Your task to perform on an android device: turn on notifications settings in the gmail app Image 0: 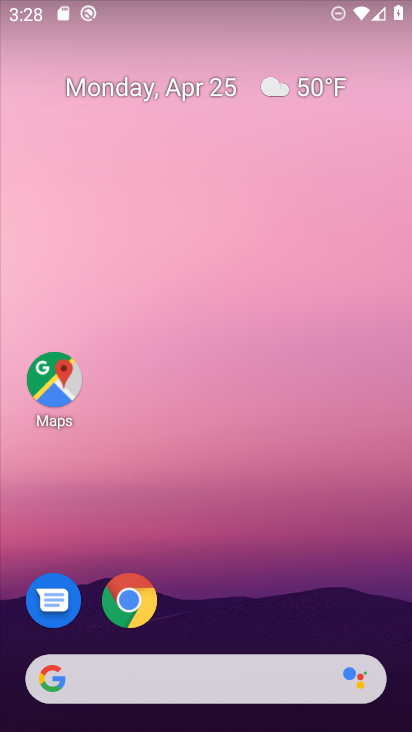
Step 0: drag from (234, 621) to (229, 27)
Your task to perform on an android device: turn on notifications settings in the gmail app Image 1: 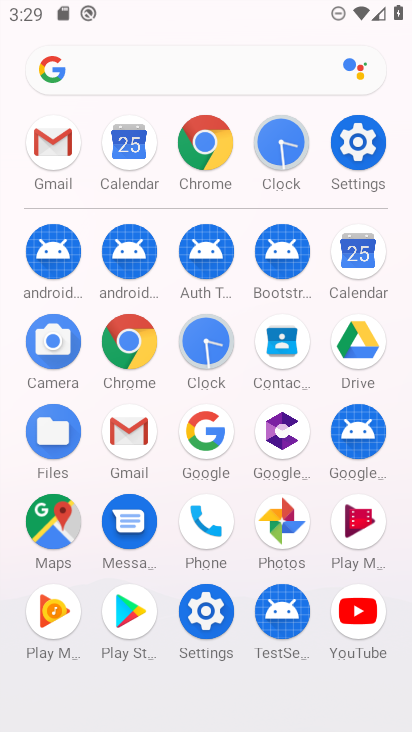
Step 1: click (139, 444)
Your task to perform on an android device: turn on notifications settings in the gmail app Image 2: 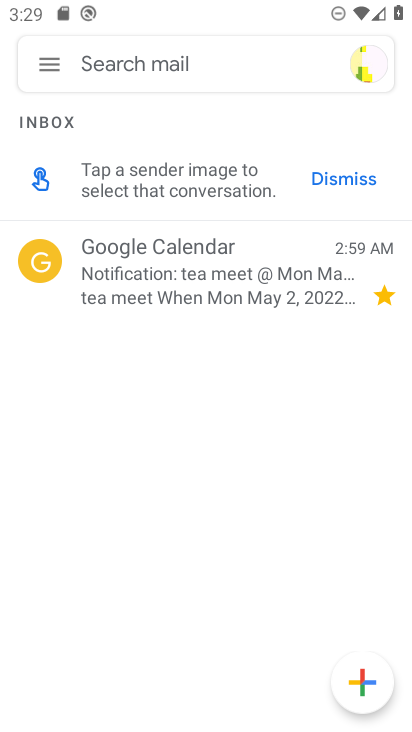
Step 2: click (31, 69)
Your task to perform on an android device: turn on notifications settings in the gmail app Image 3: 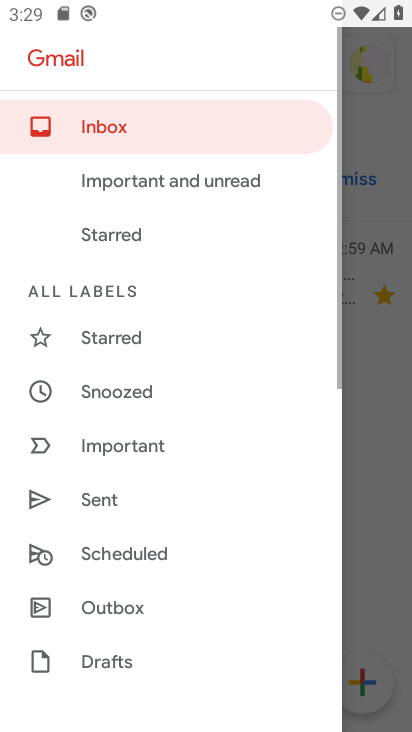
Step 3: drag from (135, 653) to (95, 139)
Your task to perform on an android device: turn on notifications settings in the gmail app Image 4: 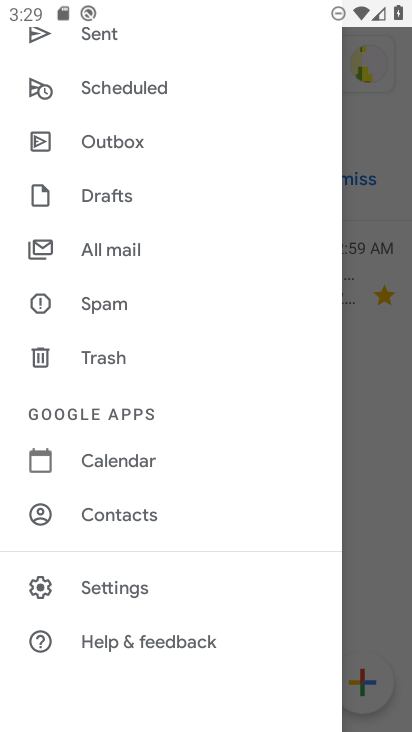
Step 4: click (156, 577)
Your task to perform on an android device: turn on notifications settings in the gmail app Image 5: 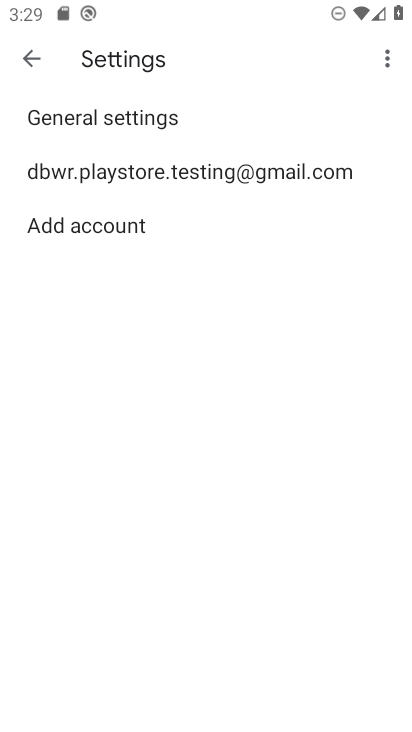
Step 5: drag from (181, 182) to (257, 466)
Your task to perform on an android device: turn on notifications settings in the gmail app Image 6: 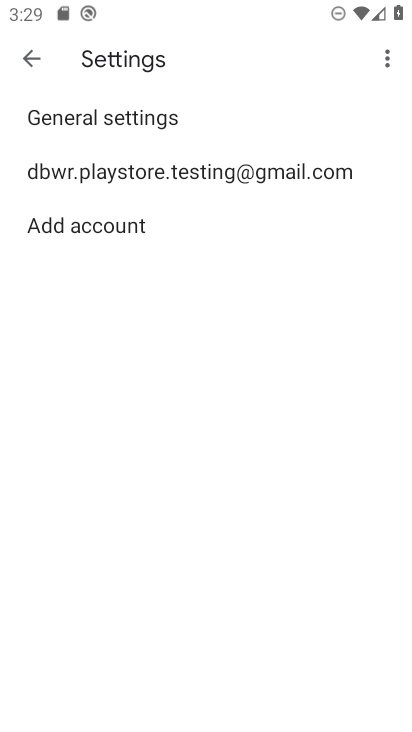
Step 6: click (137, 116)
Your task to perform on an android device: turn on notifications settings in the gmail app Image 7: 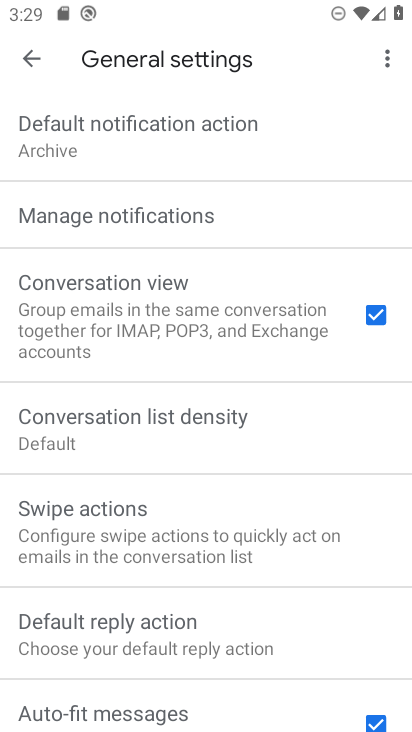
Step 7: click (132, 209)
Your task to perform on an android device: turn on notifications settings in the gmail app Image 8: 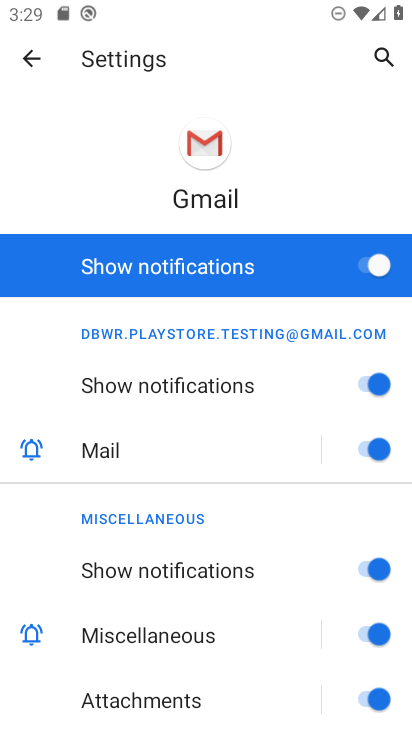
Step 8: task complete